Your task to perform on an android device: turn off sleep mode Image 0: 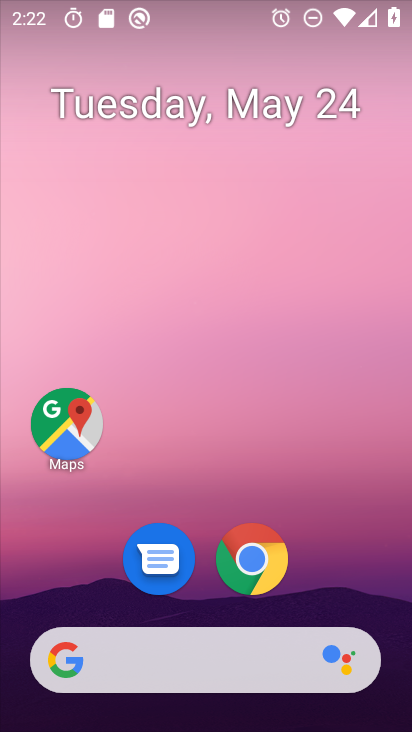
Step 0: drag from (389, 670) to (292, 206)
Your task to perform on an android device: turn off sleep mode Image 1: 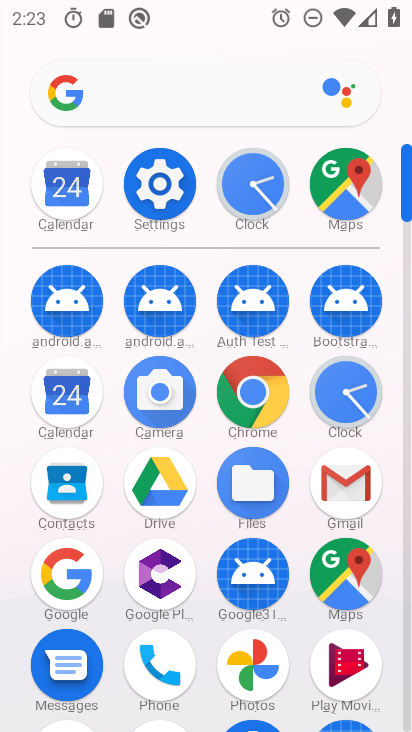
Step 1: click (181, 181)
Your task to perform on an android device: turn off sleep mode Image 2: 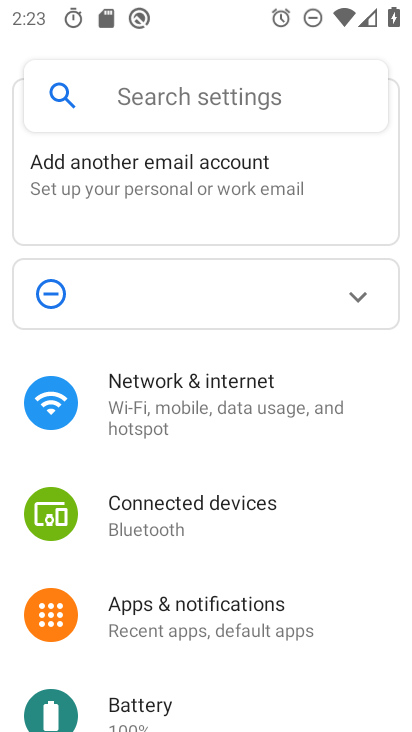
Step 2: drag from (302, 702) to (244, 266)
Your task to perform on an android device: turn off sleep mode Image 3: 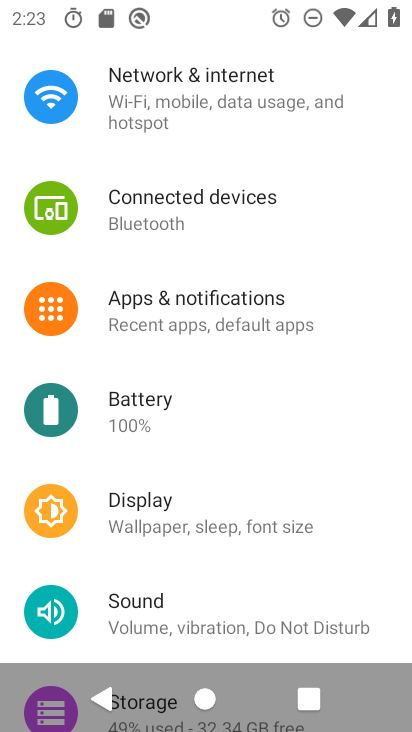
Step 3: drag from (327, 646) to (291, 266)
Your task to perform on an android device: turn off sleep mode Image 4: 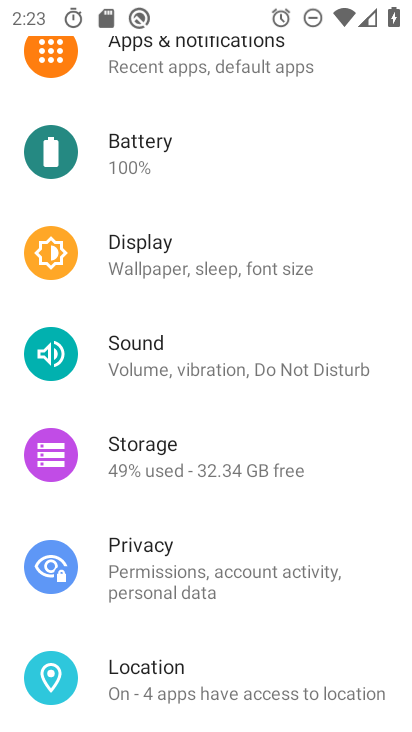
Step 4: click (158, 261)
Your task to perform on an android device: turn off sleep mode Image 5: 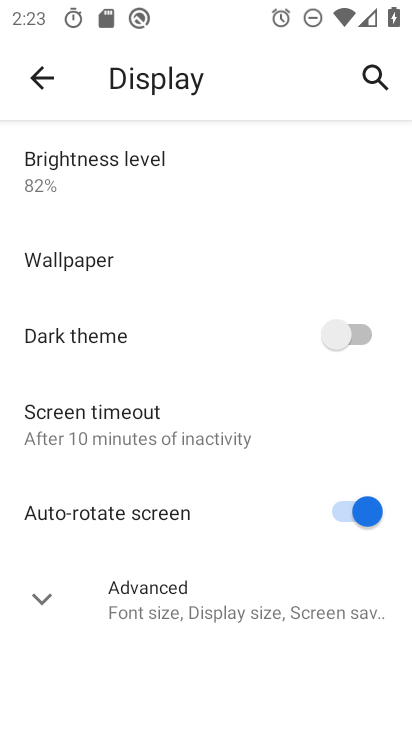
Step 5: click (102, 434)
Your task to perform on an android device: turn off sleep mode Image 6: 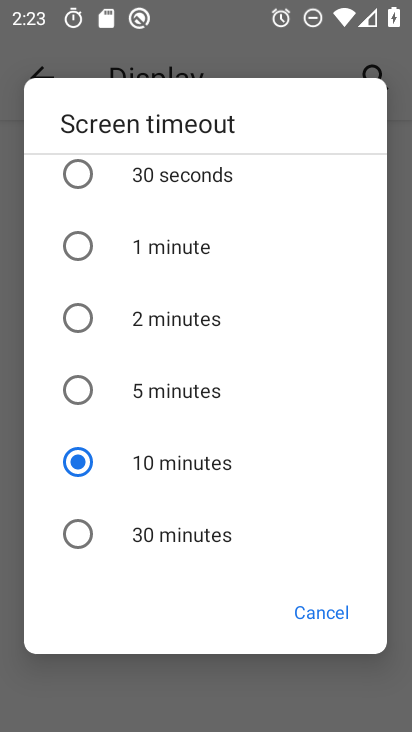
Step 6: task complete